Your task to perform on an android device: toggle sleep mode Image 0: 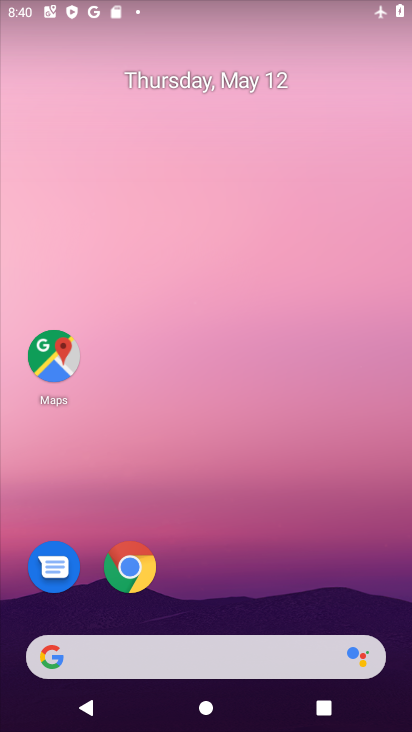
Step 0: drag from (259, 567) to (222, 108)
Your task to perform on an android device: toggle sleep mode Image 1: 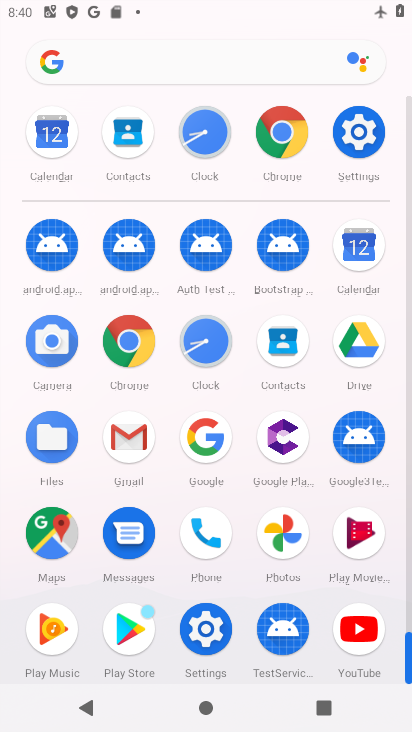
Step 1: click (343, 149)
Your task to perform on an android device: toggle sleep mode Image 2: 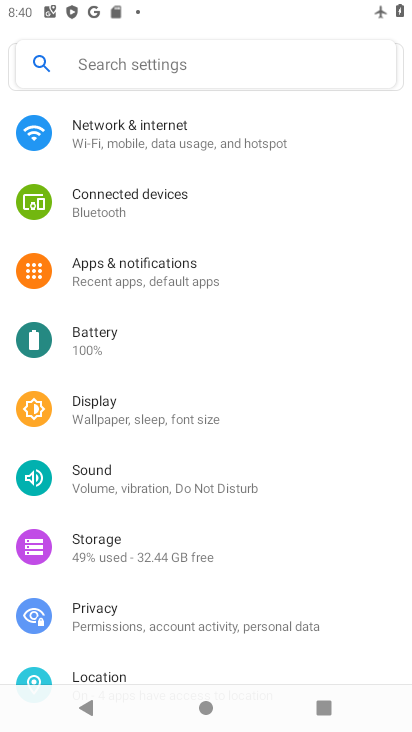
Step 2: click (159, 411)
Your task to perform on an android device: toggle sleep mode Image 3: 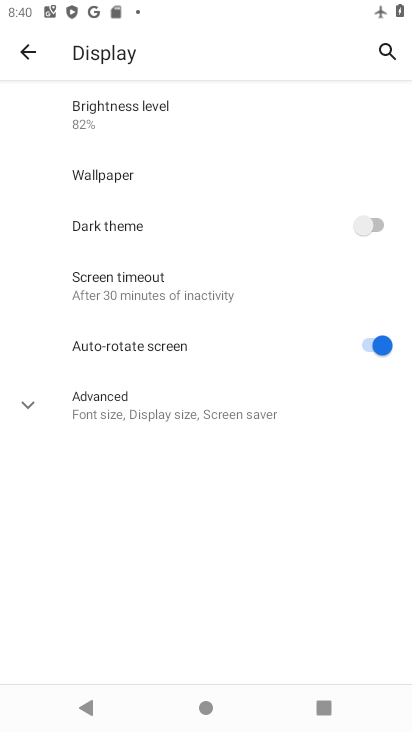
Step 3: click (174, 416)
Your task to perform on an android device: toggle sleep mode Image 4: 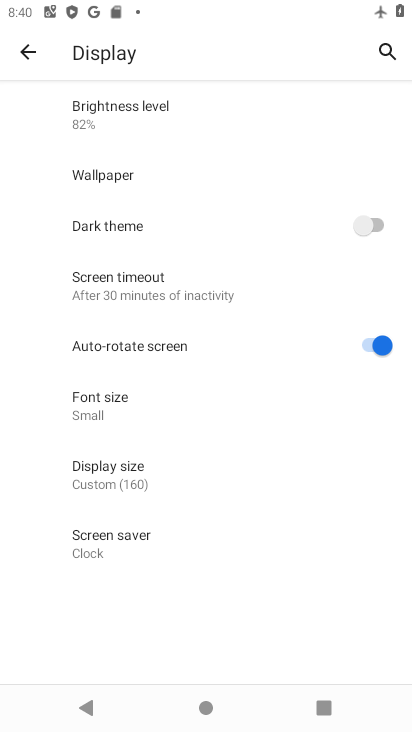
Step 4: task complete